Your task to perform on an android device: Open Yahoo.com Image 0: 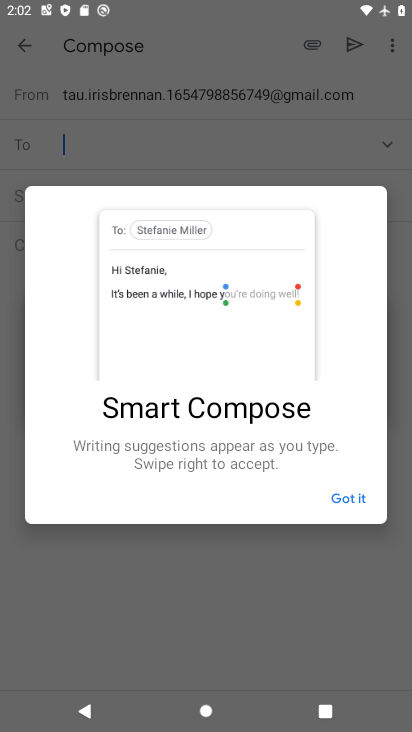
Step 0: press home button
Your task to perform on an android device: Open Yahoo.com Image 1: 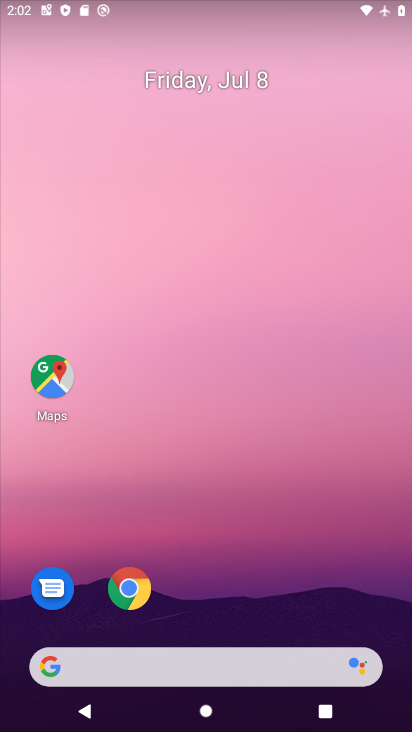
Step 1: click (56, 665)
Your task to perform on an android device: Open Yahoo.com Image 2: 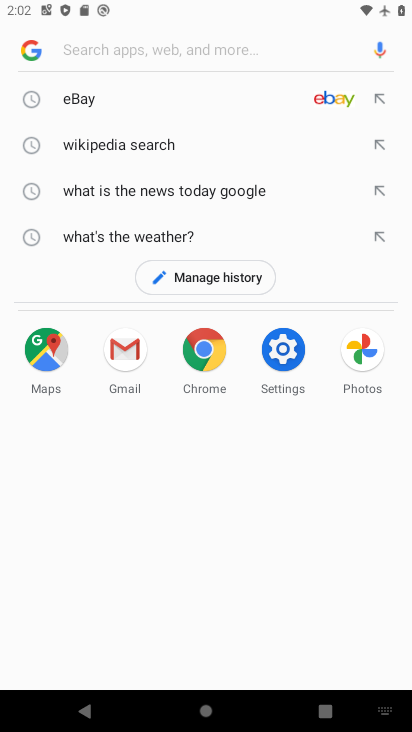
Step 2: type "Yahoo.com"
Your task to perform on an android device: Open Yahoo.com Image 3: 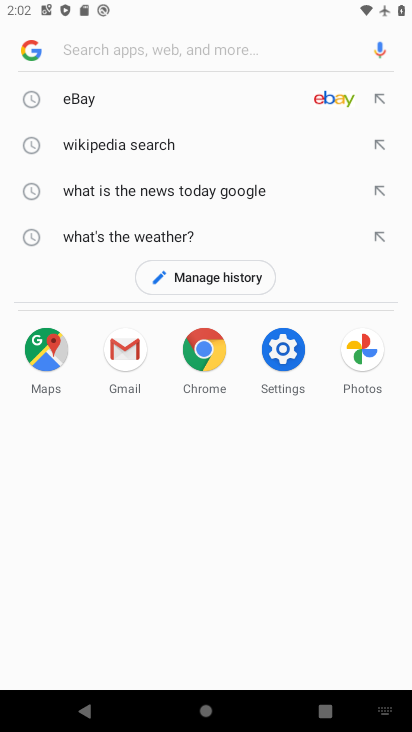
Step 3: click (147, 49)
Your task to perform on an android device: Open Yahoo.com Image 4: 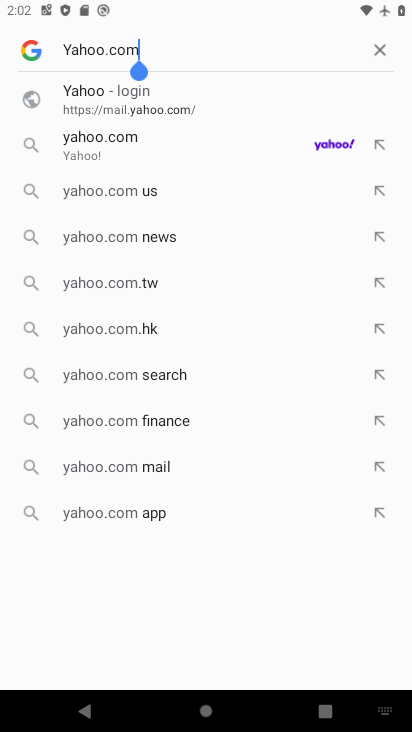
Step 4: click (102, 136)
Your task to perform on an android device: Open Yahoo.com Image 5: 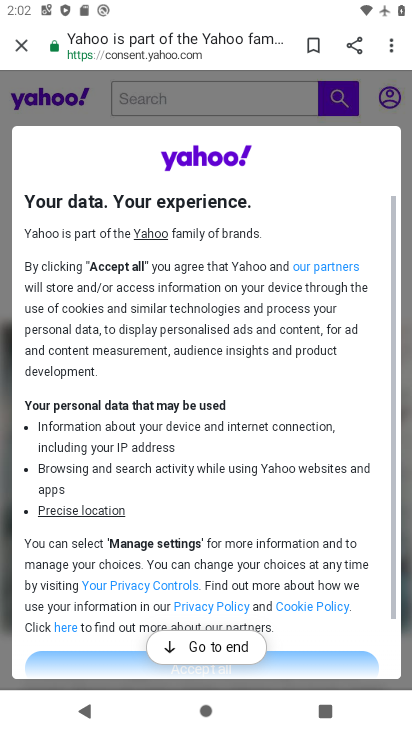
Step 5: click (288, 661)
Your task to perform on an android device: Open Yahoo.com Image 6: 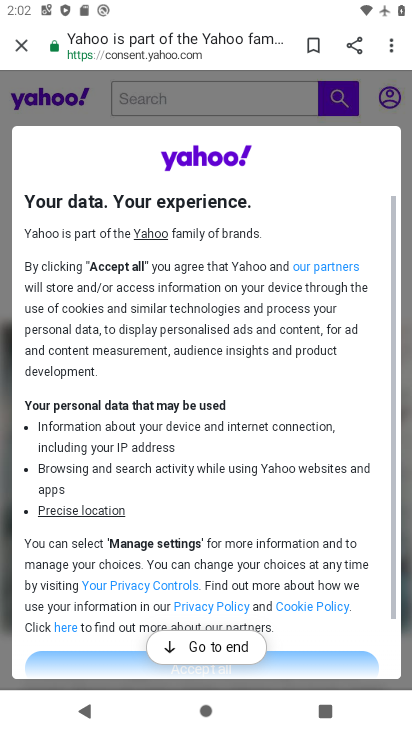
Step 6: click (225, 651)
Your task to perform on an android device: Open Yahoo.com Image 7: 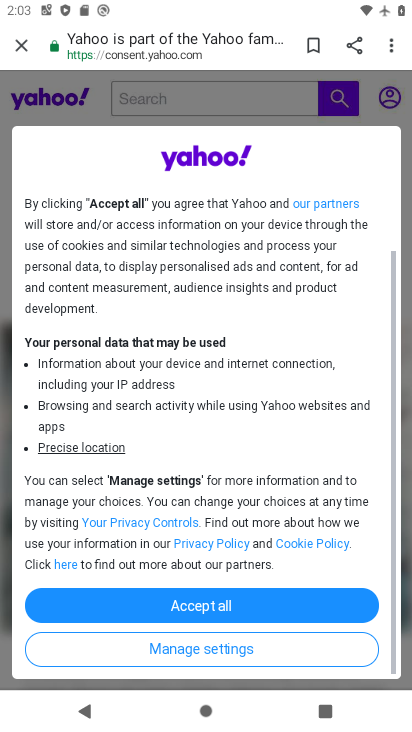
Step 7: click (235, 609)
Your task to perform on an android device: Open Yahoo.com Image 8: 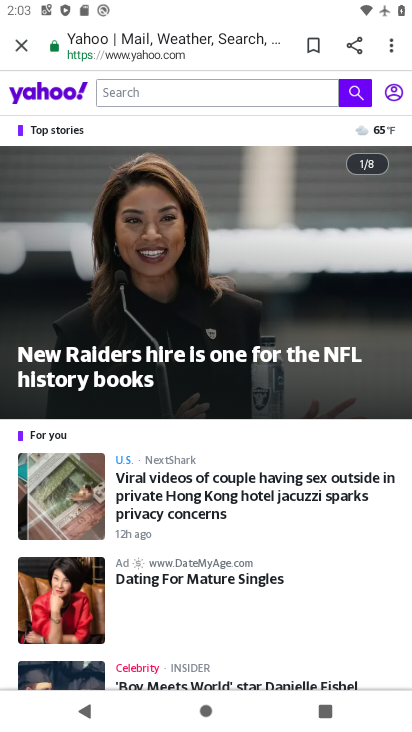
Step 8: task complete